Your task to perform on an android device: toggle javascript in the chrome app Image 0: 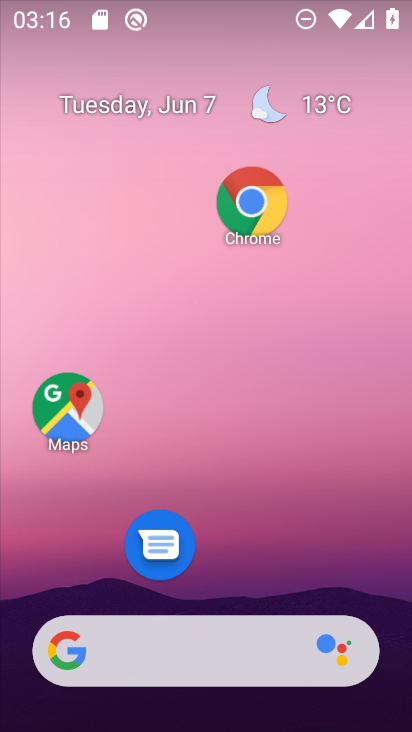
Step 0: click (270, 199)
Your task to perform on an android device: toggle javascript in the chrome app Image 1: 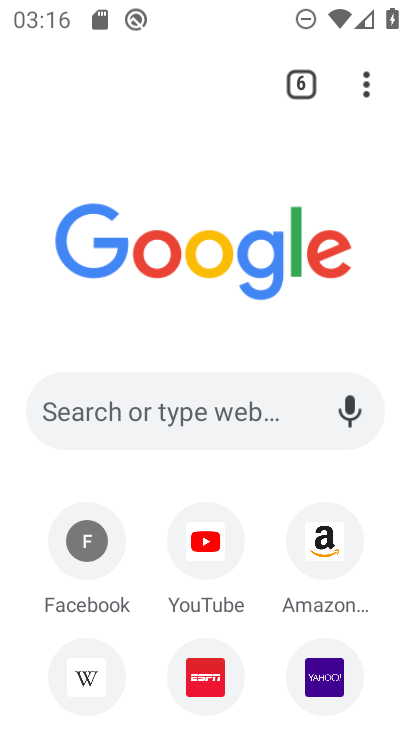
Step 1: click (377, 71)
Your task to perform on an android device: toggle javascript in the chrome app Image 2: 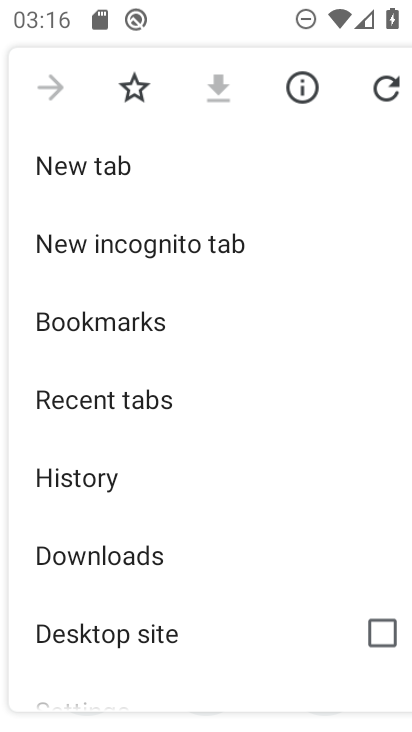
Step 2: drag from (148, 573) to (183, 243)
Your task to perform on an android device: toggle javascript in the chrome app Image 3: 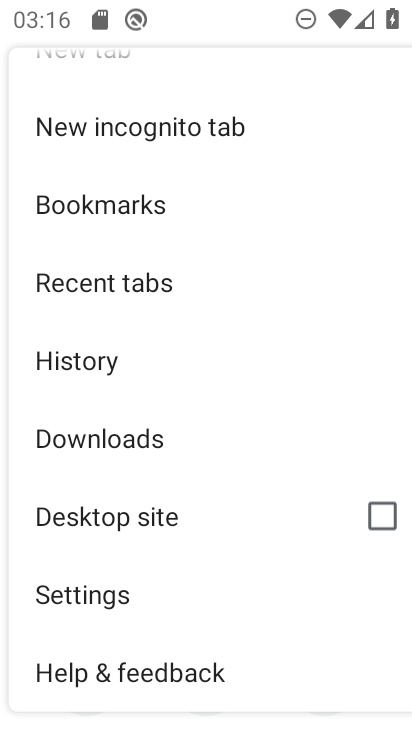
Step 3: click (110, 599)
Your task to perform on an android device: toggle javascript in the chrome app Image 4: 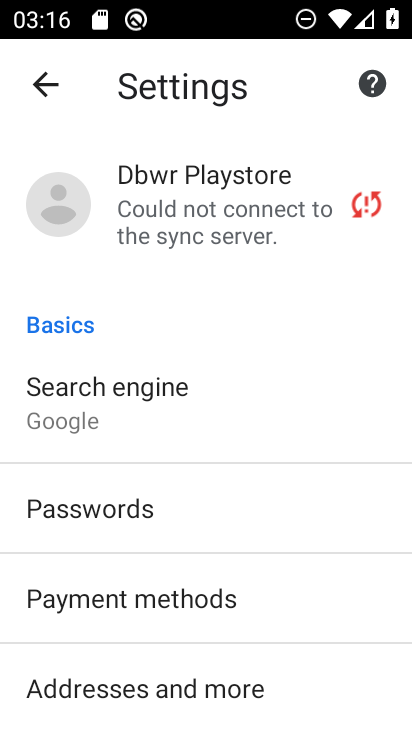
Step 4: drag from (166, 632) to (179, 325)
Your task to perform on an android device: toggle javascript in the chrome app Image 5: 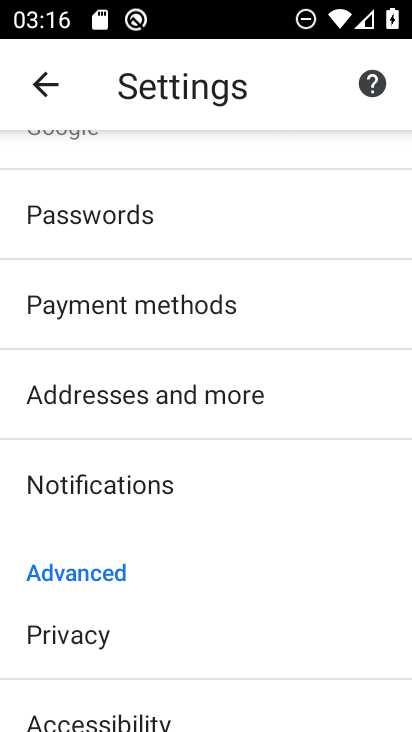
Step 5: drag from (185, 682) to (222, 330)
Your task to perform on an android device: toggle javascript in the chrome app Image 6: 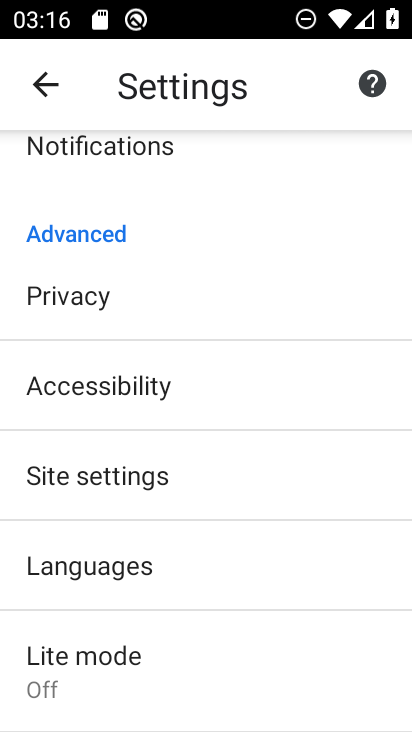
Step 6: click (134, 465)
Your task to perform on an android device: toggle javascript in the chrome app Image 7: 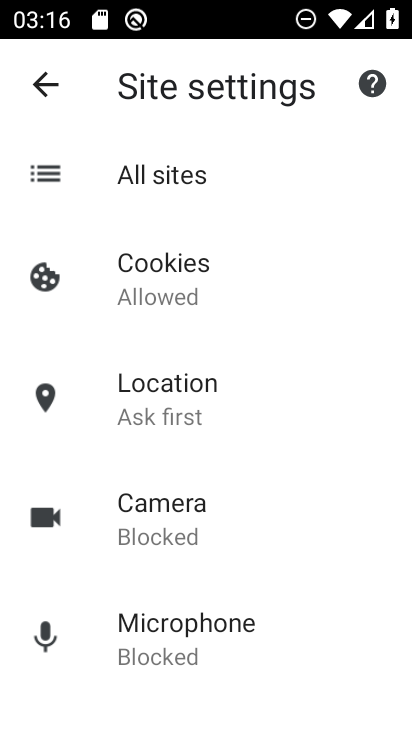
Step 7: drag from (194, 599) to (206, 263)
Your task to perform on an android device: toggle javascript in the chrome app Image 8: 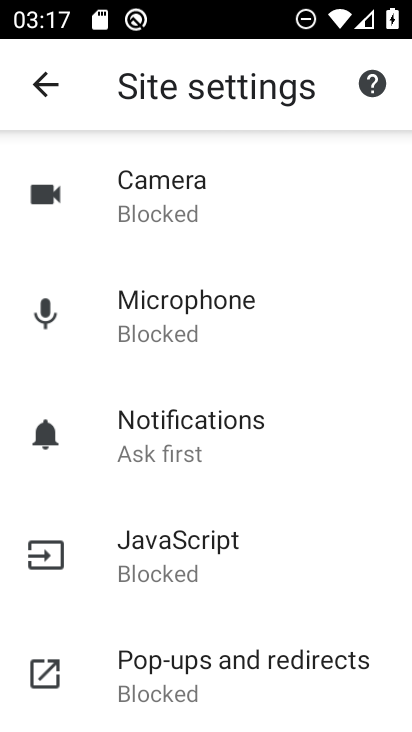
Step 8: click (178, 564)
Your task to perform on an android device: toggle javascript in the chrome app Image 9: 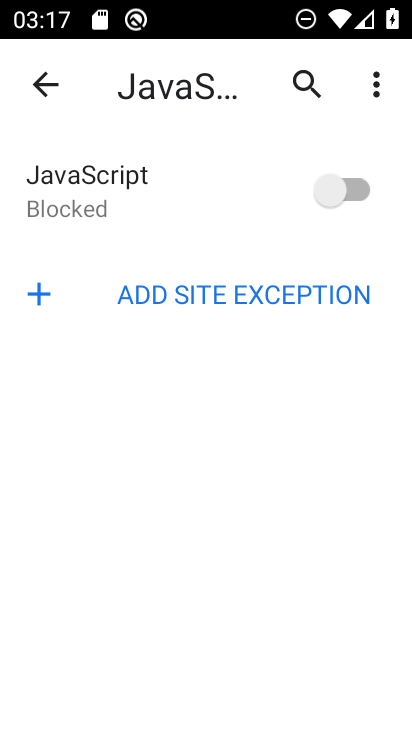
Step 9: click (336, 176)
Your task to perform on an android device: toggle javascript in the chrome app Image 10: 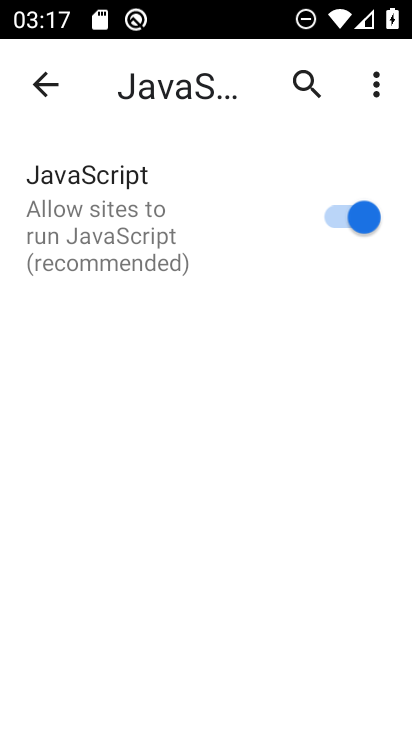
Step 10: task complete